Your task to perform on an android device: Go to network settings Image 0: 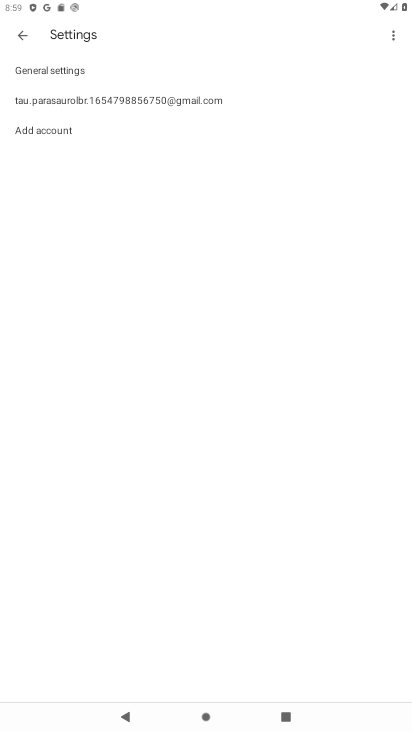
Step 0: drag from (242, 2) to (270, 465)
Your task to perform on an android device: Go to network settings Image 1: 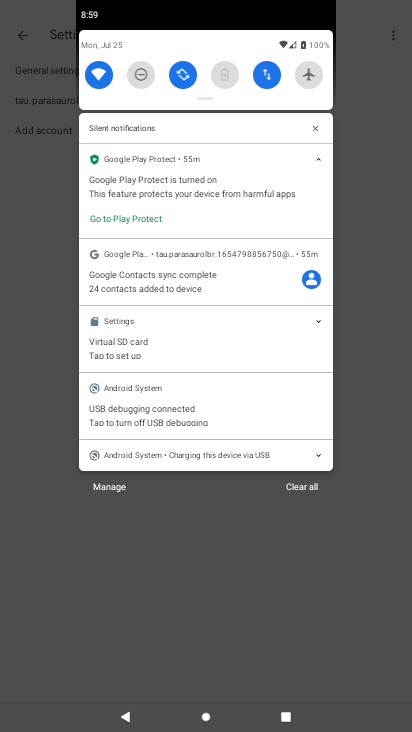
Step 1: click (268, 75)
Your task to perform on an android device: Go to network settings Image 2: 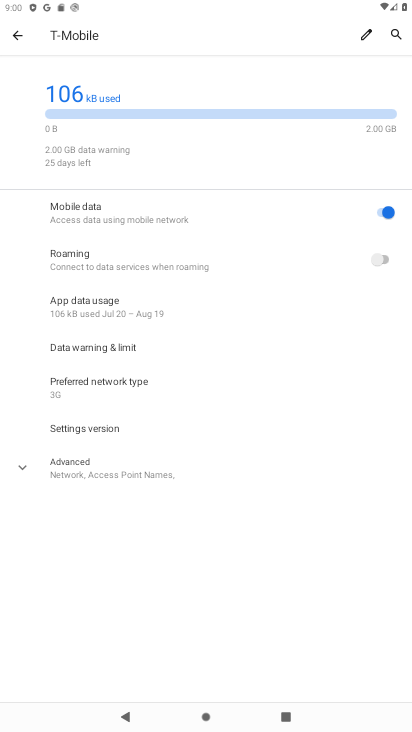
Step 2: task complete